Your task to perform on an android device: toggle translation in the chrome app Image 0: 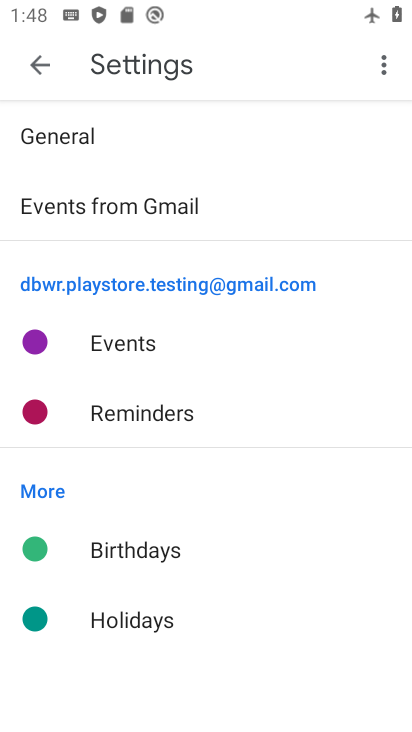
Step 0: press home button
Your task to perform on an android device: toggle translation in the chrome app Image 1: 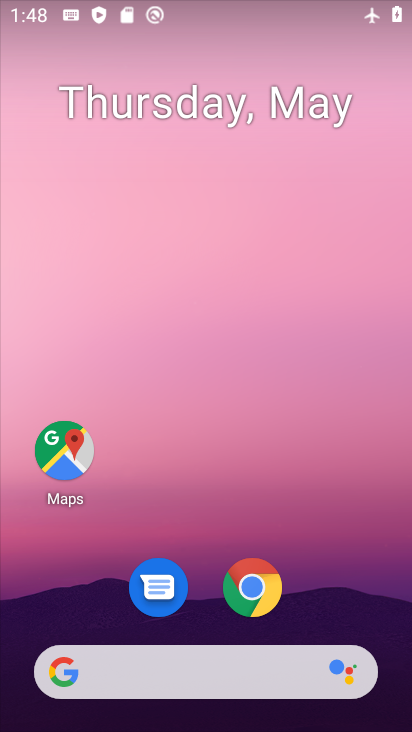
Step 1: click (251, 585)
Your task to perform on an android device: toggle translation in the chrome app Image 2: 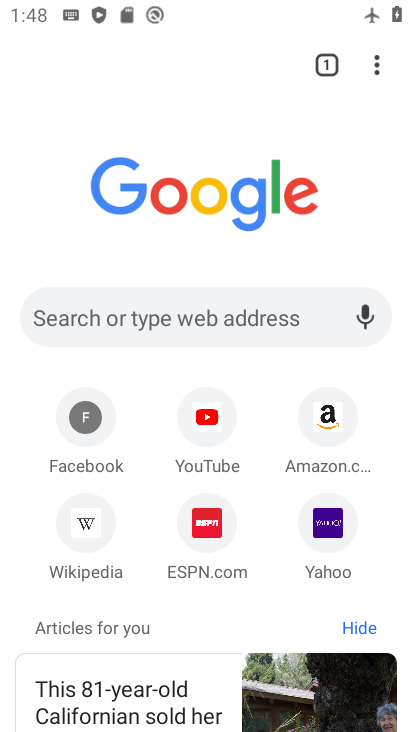
Step 2: click (379, 68)
Your task to perform on an android device: toggle translation in the chrome app Image 3: 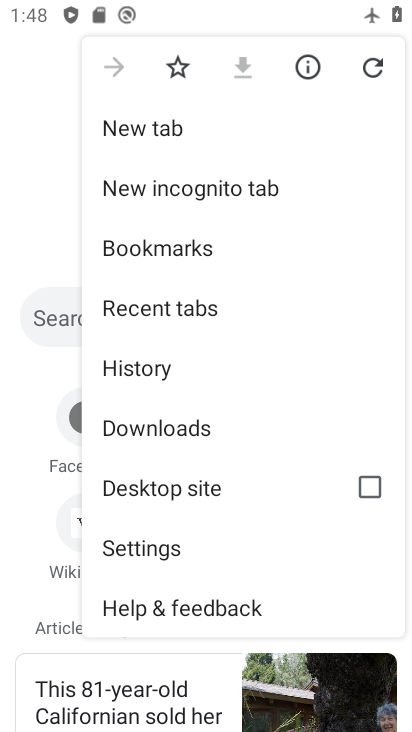
Step 3: click (170, 548)
Your task to perform on an android device: toggle translation in the chrome app Image 4: 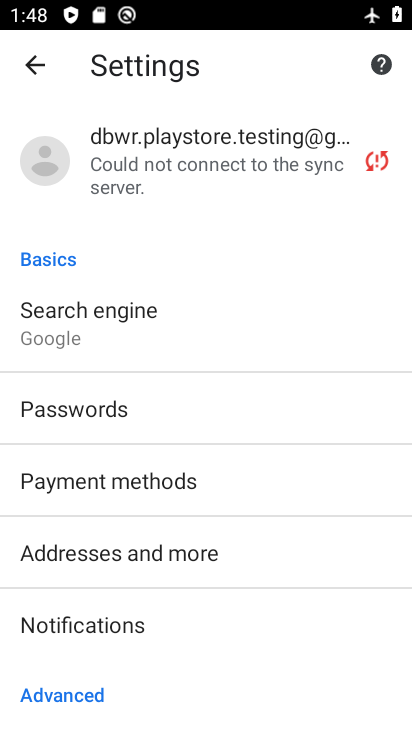
Step 4: drag from (208, 601) to (117, 227)
Your task to perform on an android device: toggle translation in the chrome app Image 5: 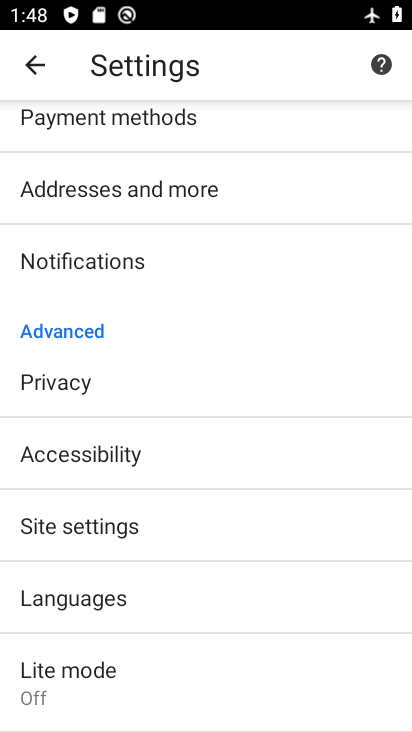
Step 5: click (112, 597)
Your task to perform on an android device: toggle translation in the chrome app Image 6: 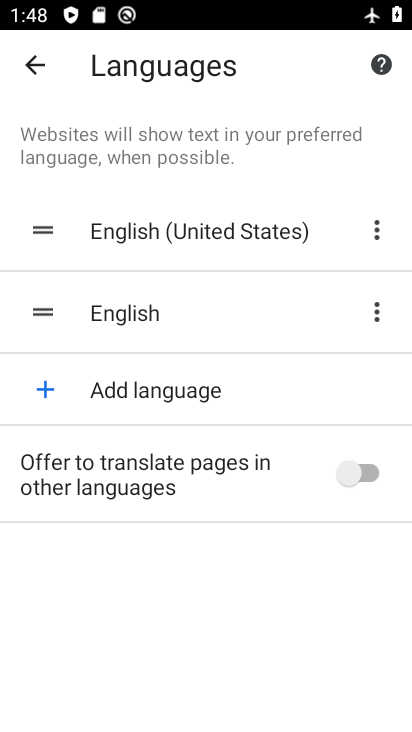
Step 6: click (347, 459)
Your task to perform on an android device: toggle translation in the chrome app Image 7: 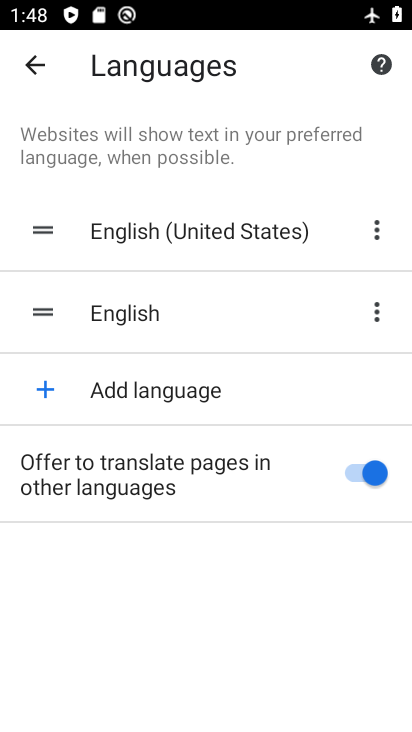
Step 7: task complete